Your task to perform on an android device: delete the emails in spam in the gmail app Image 0: 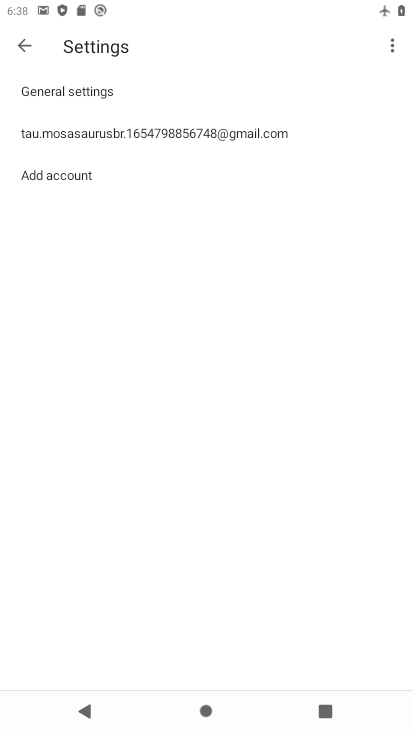
Step 0: click (19, 52)
Your task to perform on an android device: delete the emails in spam in the gmail app Image 1: 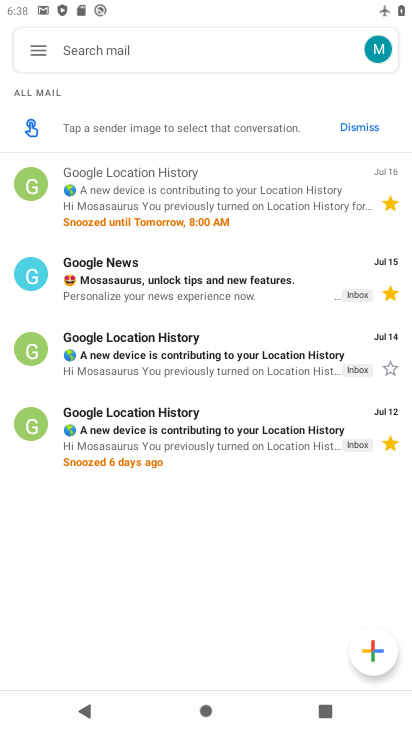
Step 1: click (35, 52)
Your task to perform on an android device: delete the emails in spam in the gmail app Image 2: 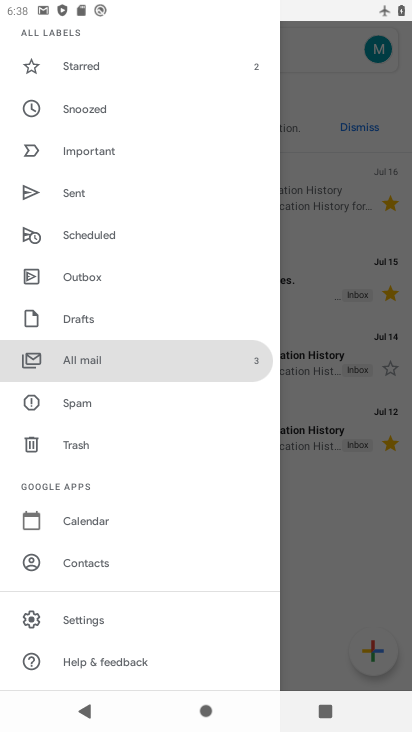
Step 2: click (73, 401)
Your task to perform on an android device: delete the emails in spam in the gmail app Image 3: 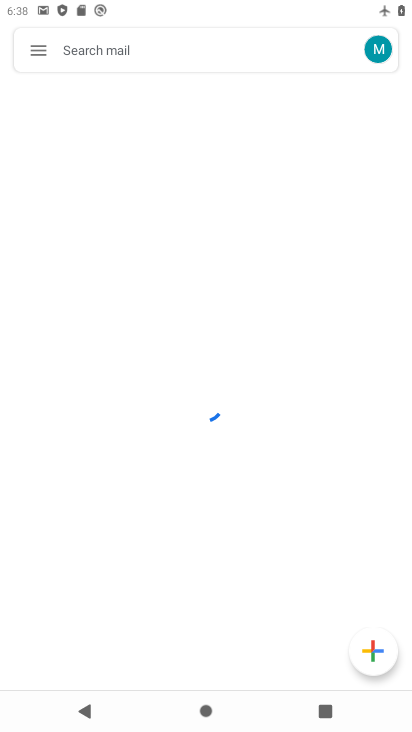
Step 3: task complete